Your task to perform on an android device: open app "McDonald's" (install if not already installed) and go to login screen Image 0: 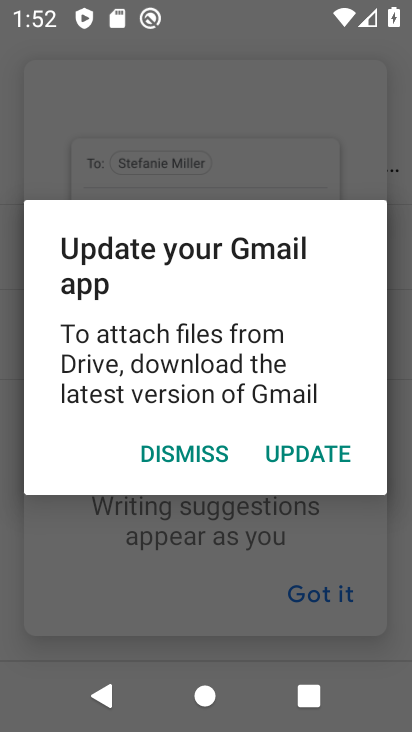
Step 0: press home button
Your task to perform on an android device: open app "McDonald's" (install if not already installed) and go to login screen Image 1: 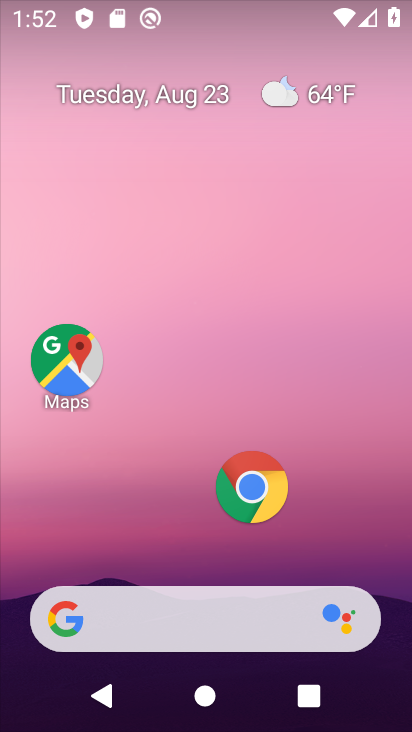
Step 1: drag from (180, 563) to (188, 134)
Your task to perform on an android device: open app "McDonald's" (install if not already installed) and go to login screen Image 2: 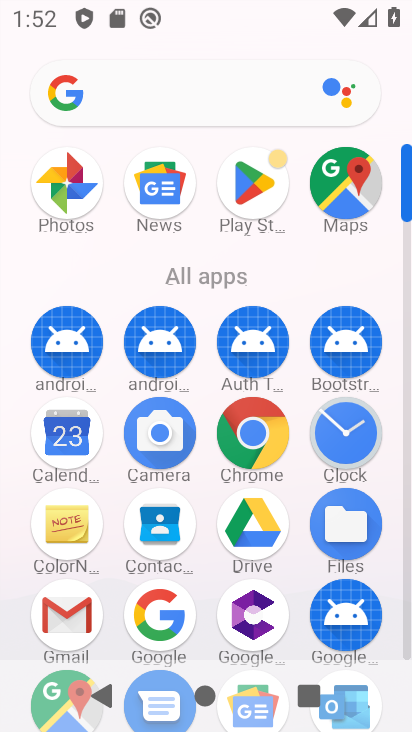
Step 2: click (249, 169)
Your task to perform on an android device: open app "McDonald's" (install if not already installed) and go to login screen Image 3: 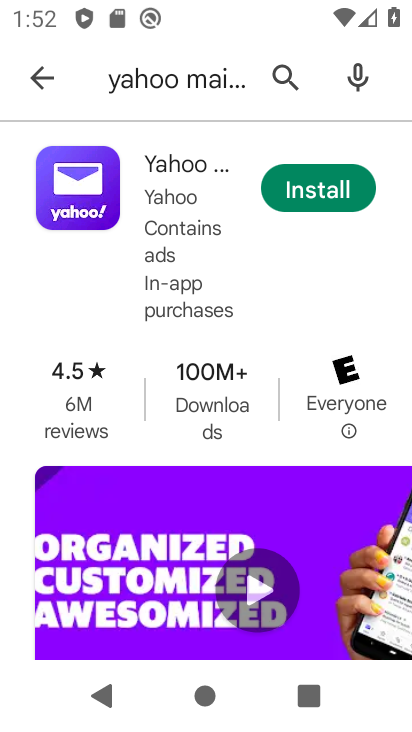
Step 3: click (29, 64)
Your task to perform on an android device: open app "McDonald's" (install if not already installed) and go to login screen Image 4: 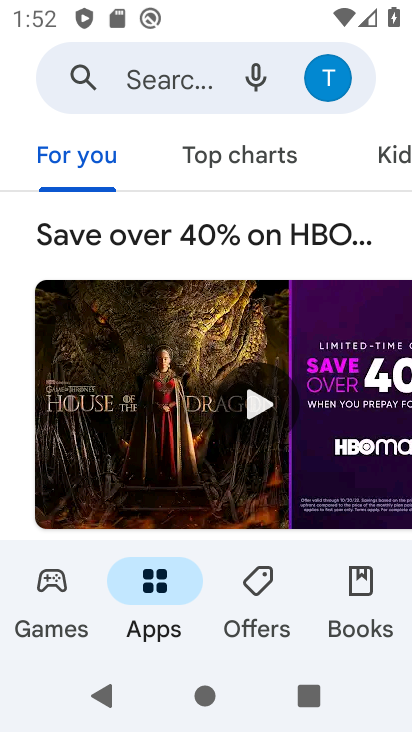
Step 4: click (153, 51)
Your task to perform on an android device: open app "McDonald's" (install if not already installed) and go to login screen Image 5: 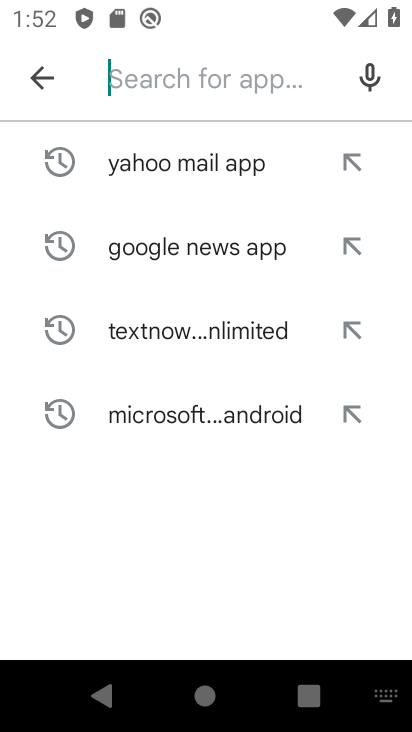
Step 5: type "McDonald's "
Your task to perform on an android device: open app "McDonald's" (install if not already installed) and go to login screen Image 6: 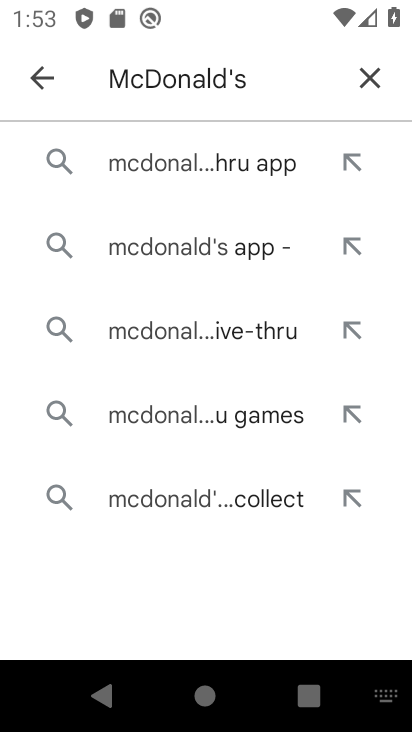
Step 6: click (160, 159)
Your task to perform on an android device: open app "McDonald's" (install if not already installed) and go to login screen Image 7: 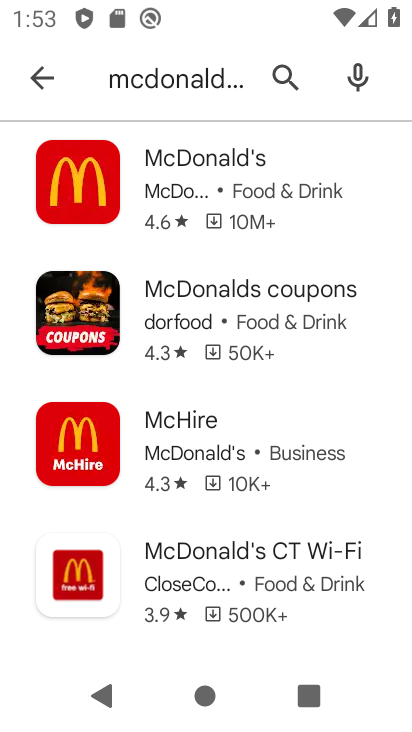
Step 7: click (225, 186)
Your task to perform on an android device: open app "McDonald's" (install if not already installed) and go to login screen Image 8: 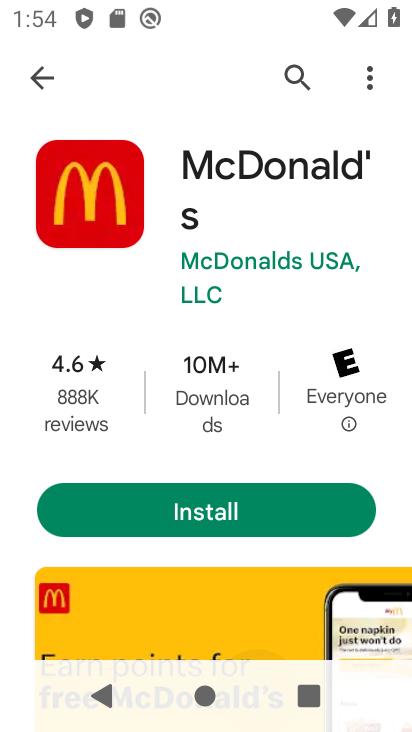
Step 8: click (194, 493)
Your task to perform on an android device: open app "McDonald's" (install if not already installed) and go to login screen Image 9: 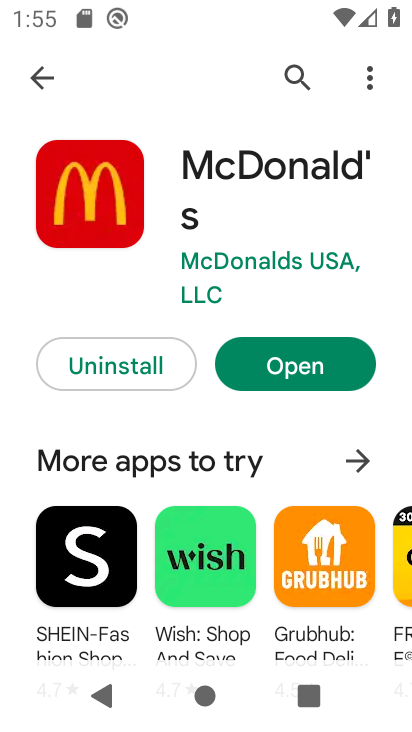
Step 9: task complete